Your task to perform on an android device: Open Reddit.com Image 0: 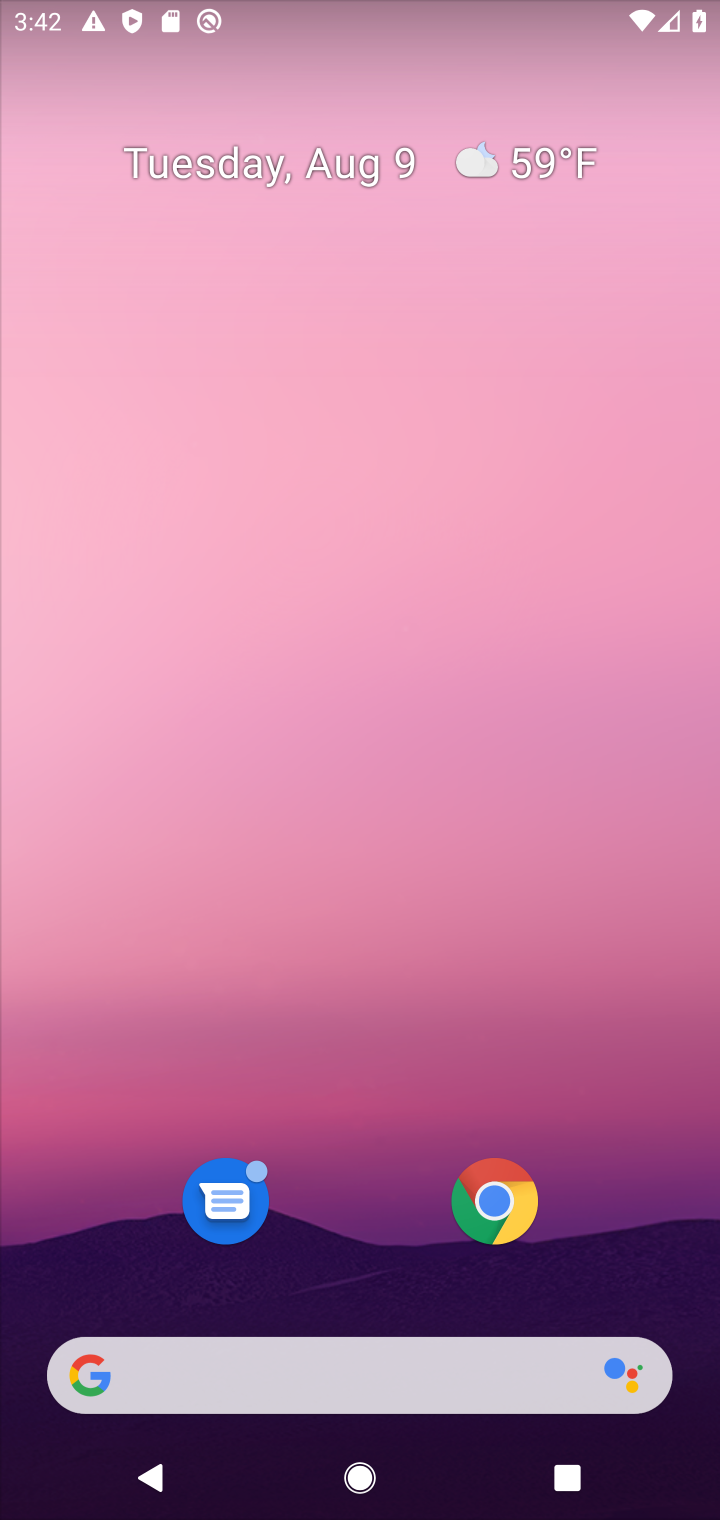
Step 0: click (343, 1385)
Your task to perform on an android device: Open Reddit.com Image 1: 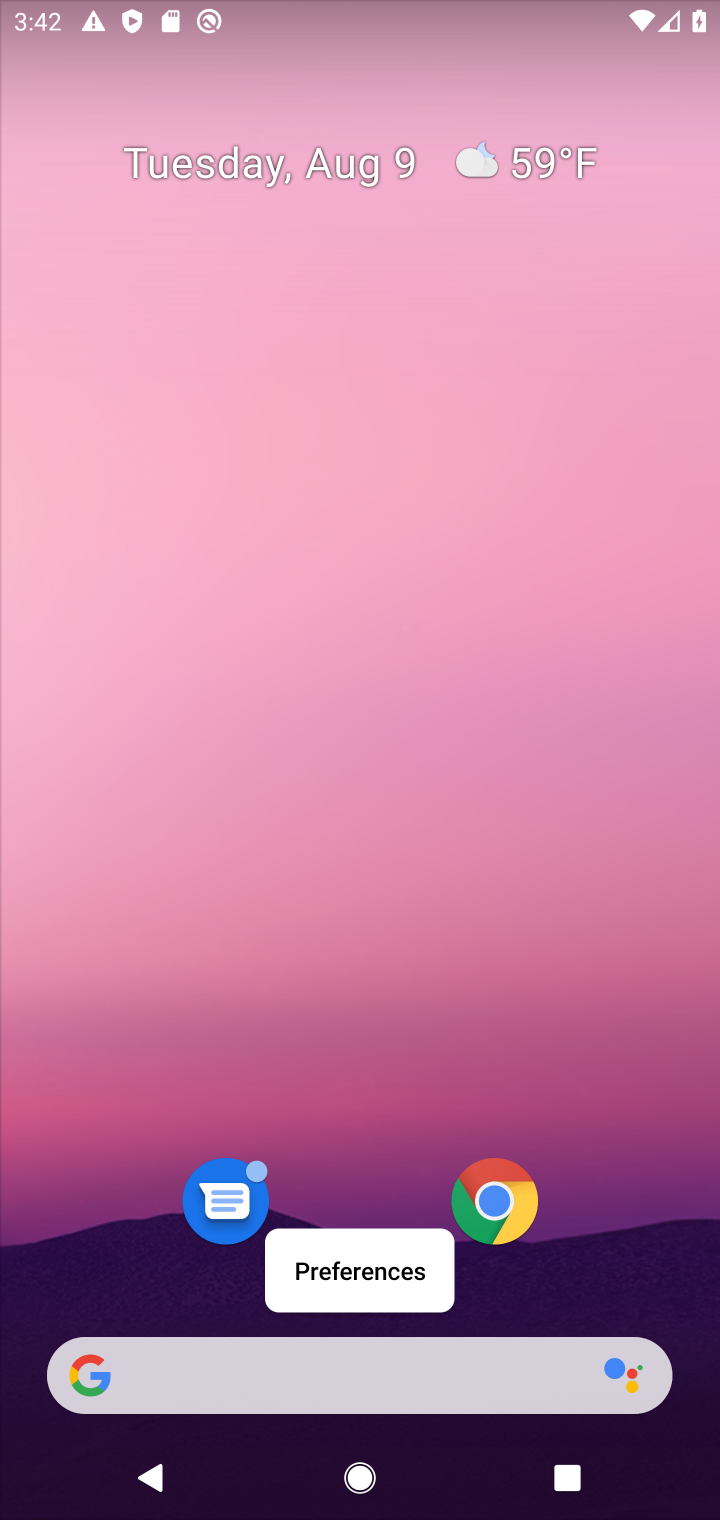
Step 1: click (343, 1385)
Your task to perform on an android device: Open Reddit.com Image 2: 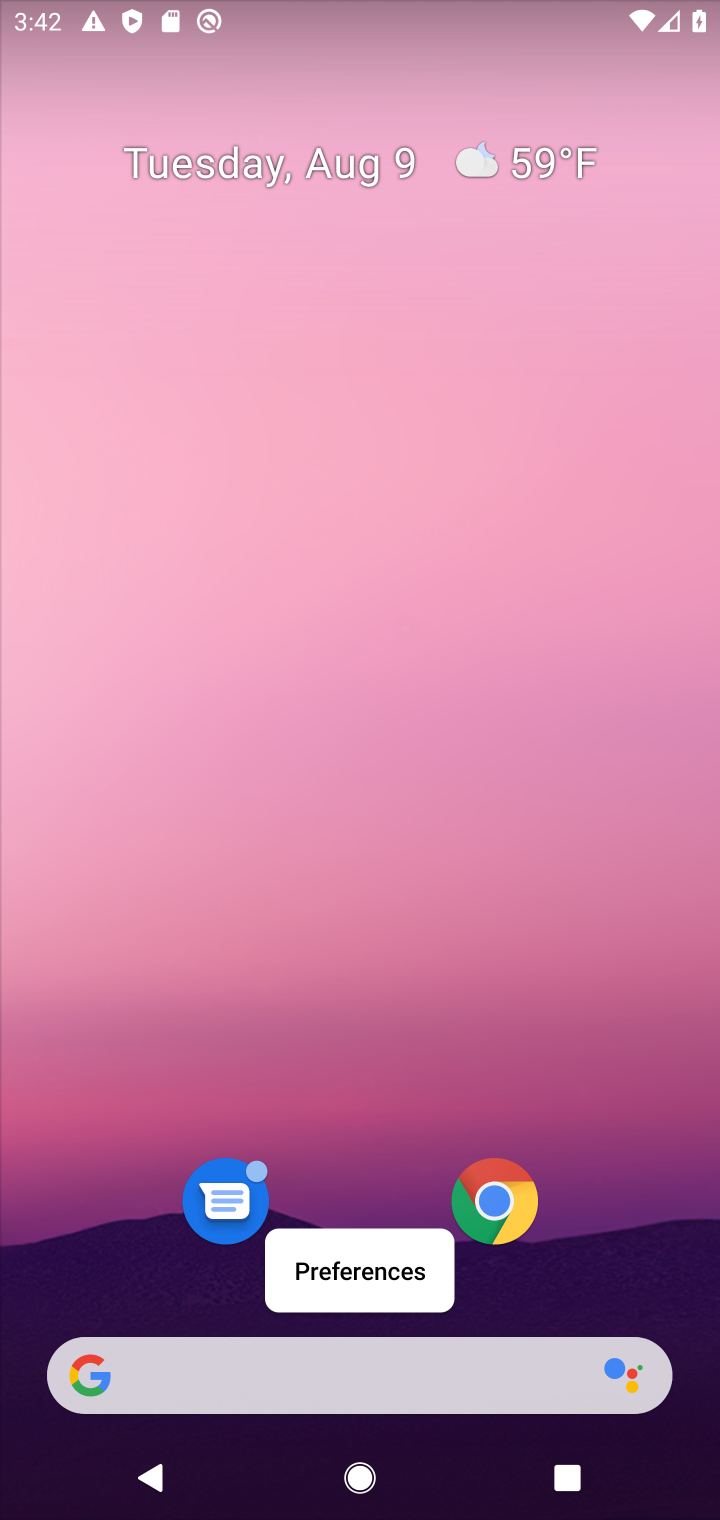
Step 2: click (343, 1385)
Your task to perform on an android device: Open Reddit.com Image 3: 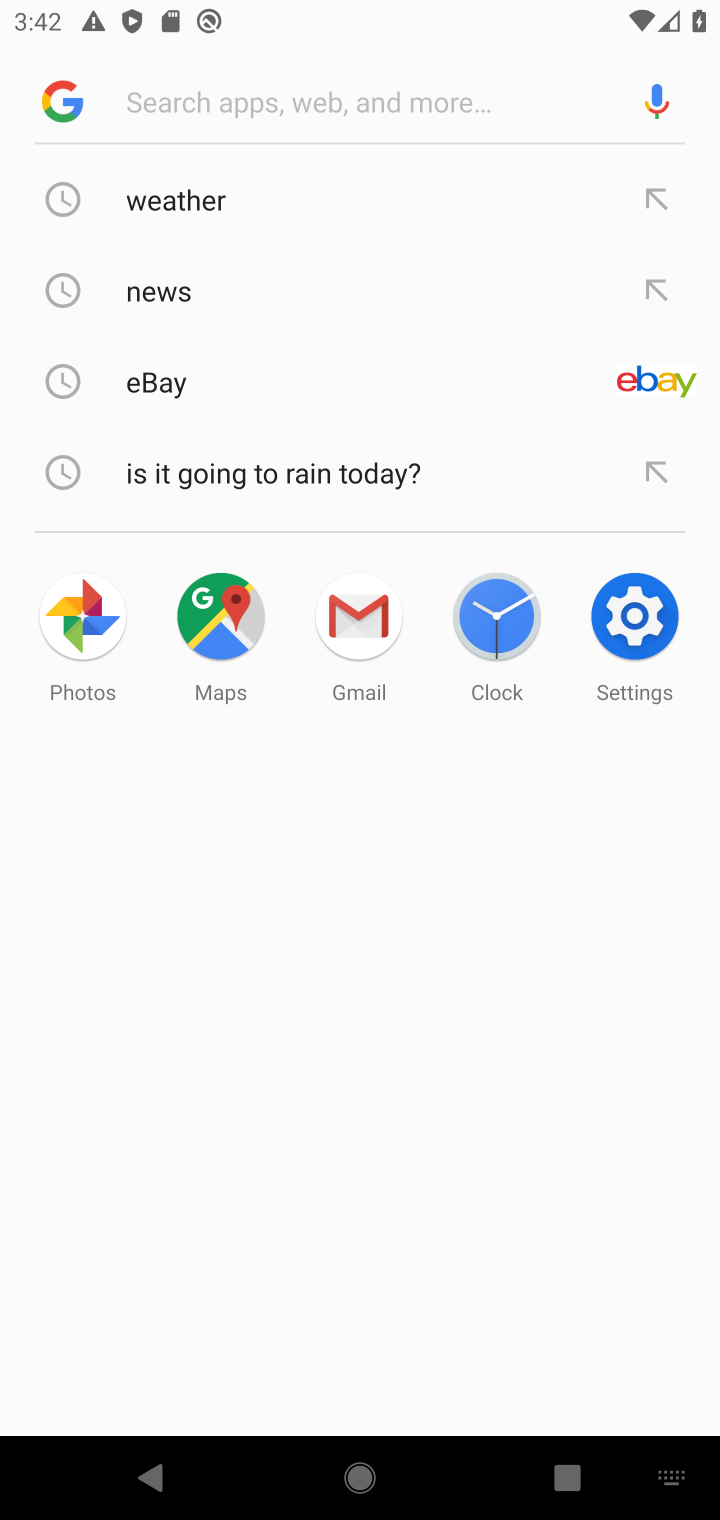
Step 3: type "reddit"
Your task to perform on an android device: Open Reddit.com Image 4: 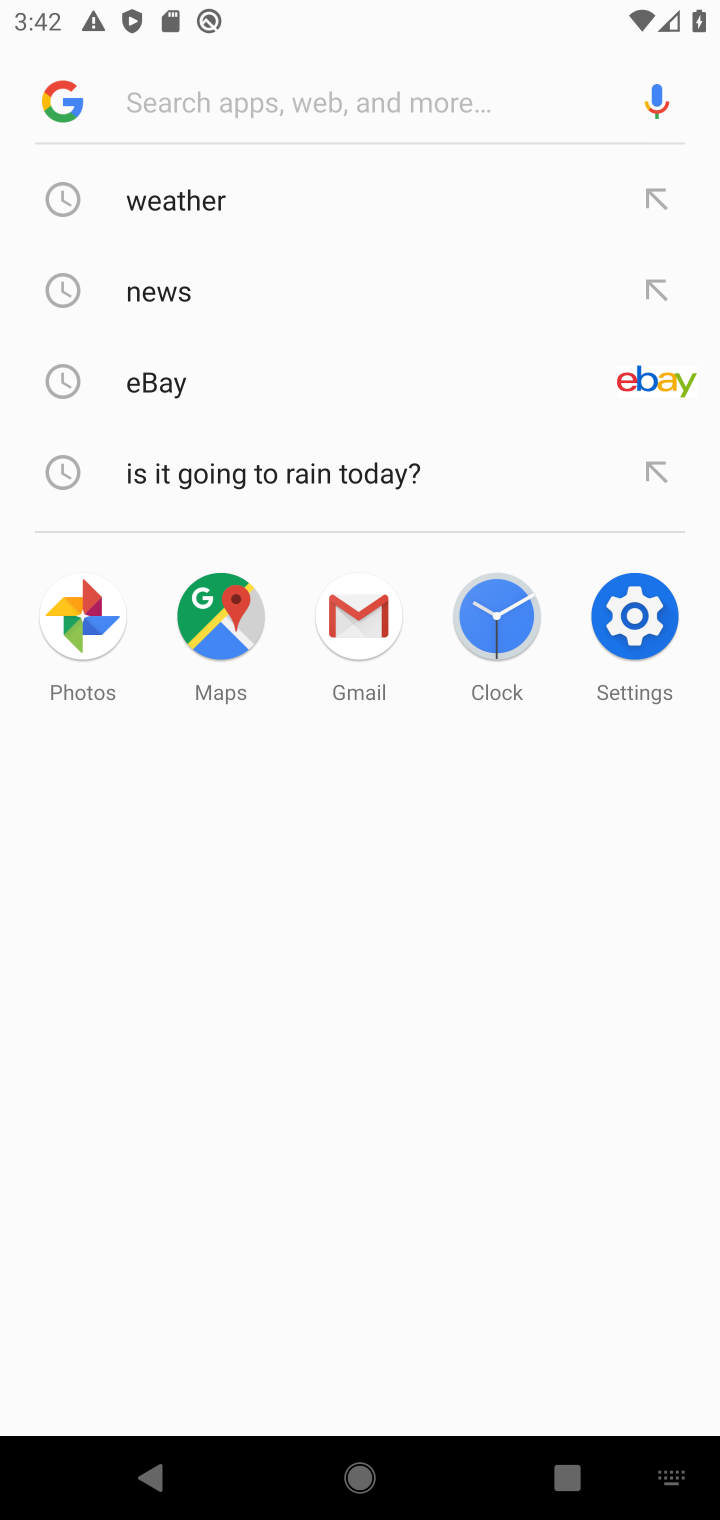
Step 4: click (222, 90)
Your task to perform on an android device: Open Reddit.com Image 5: 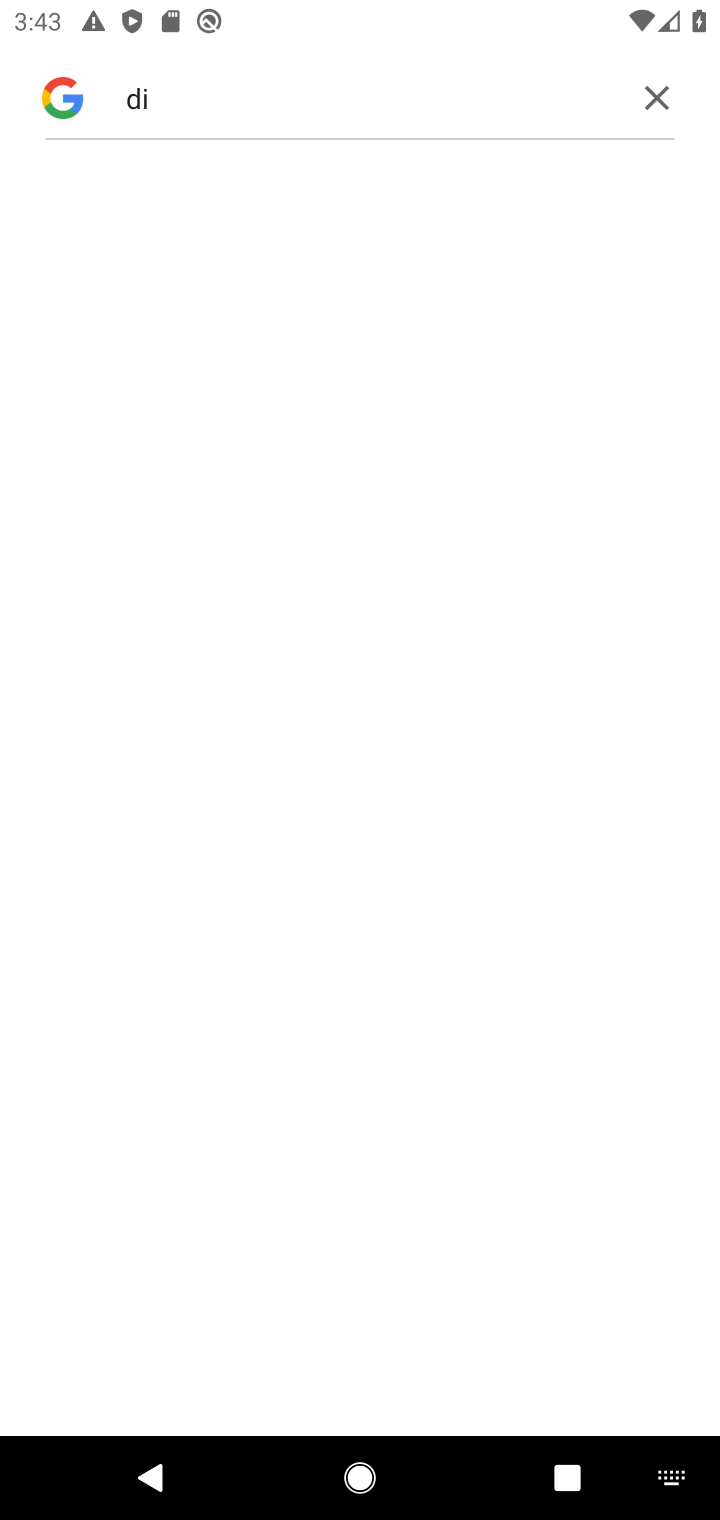
Step 5: click (671, 90)
Your task to perform on an android device: Open Reddit.com Image 6: 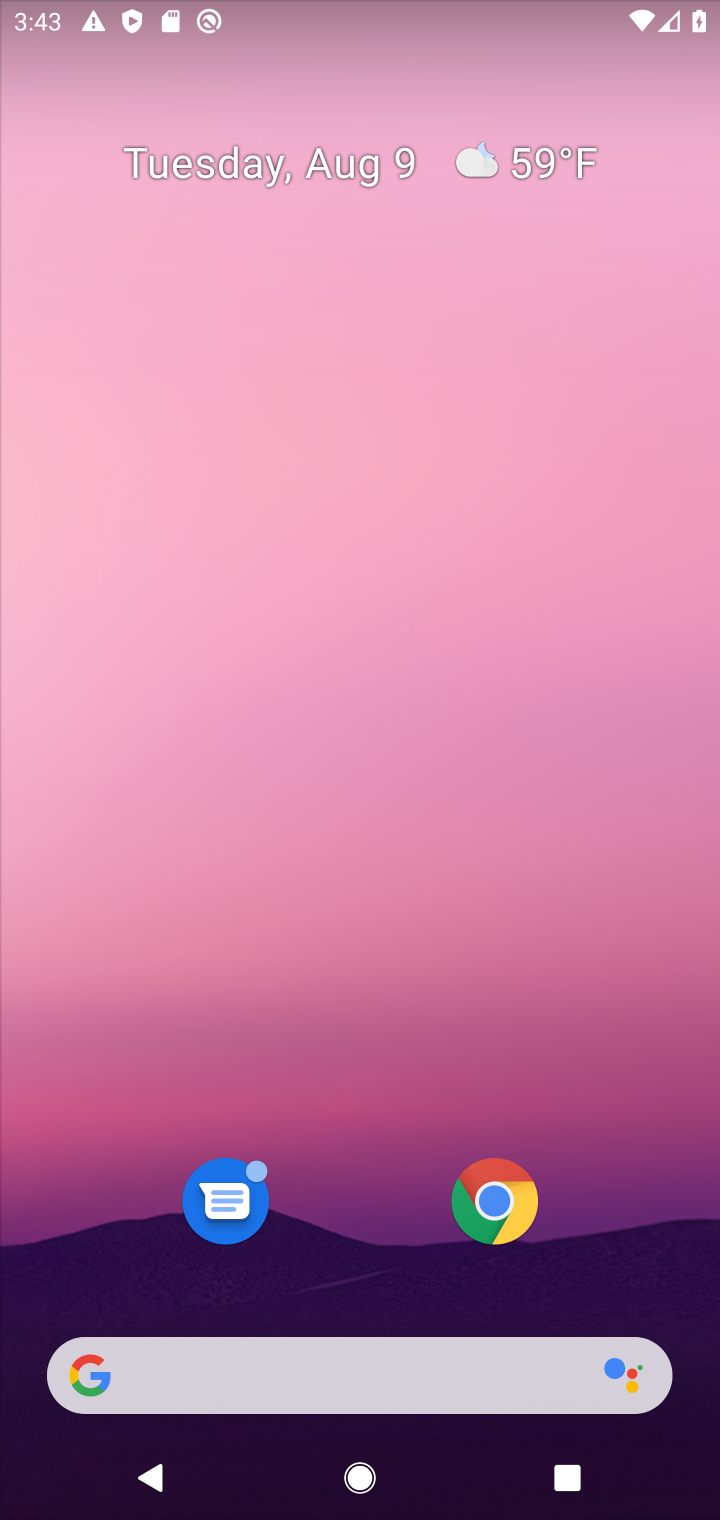
Step 6: type "redit"
Your task to perform on an android device: Open Reddit.com Image 7: 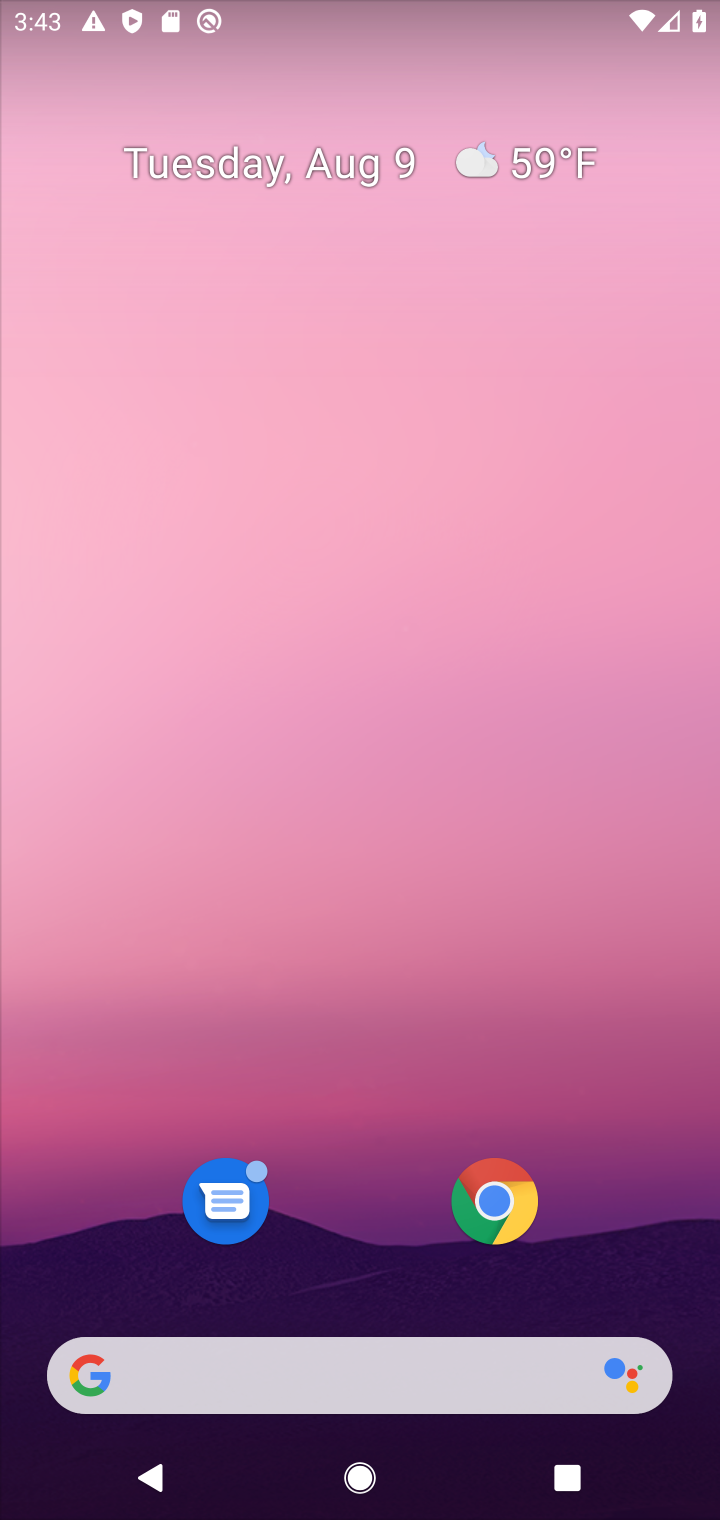
Step 7: click (476, 1386)
Your task to perform on an android device: Open Reddit.com Image 8: 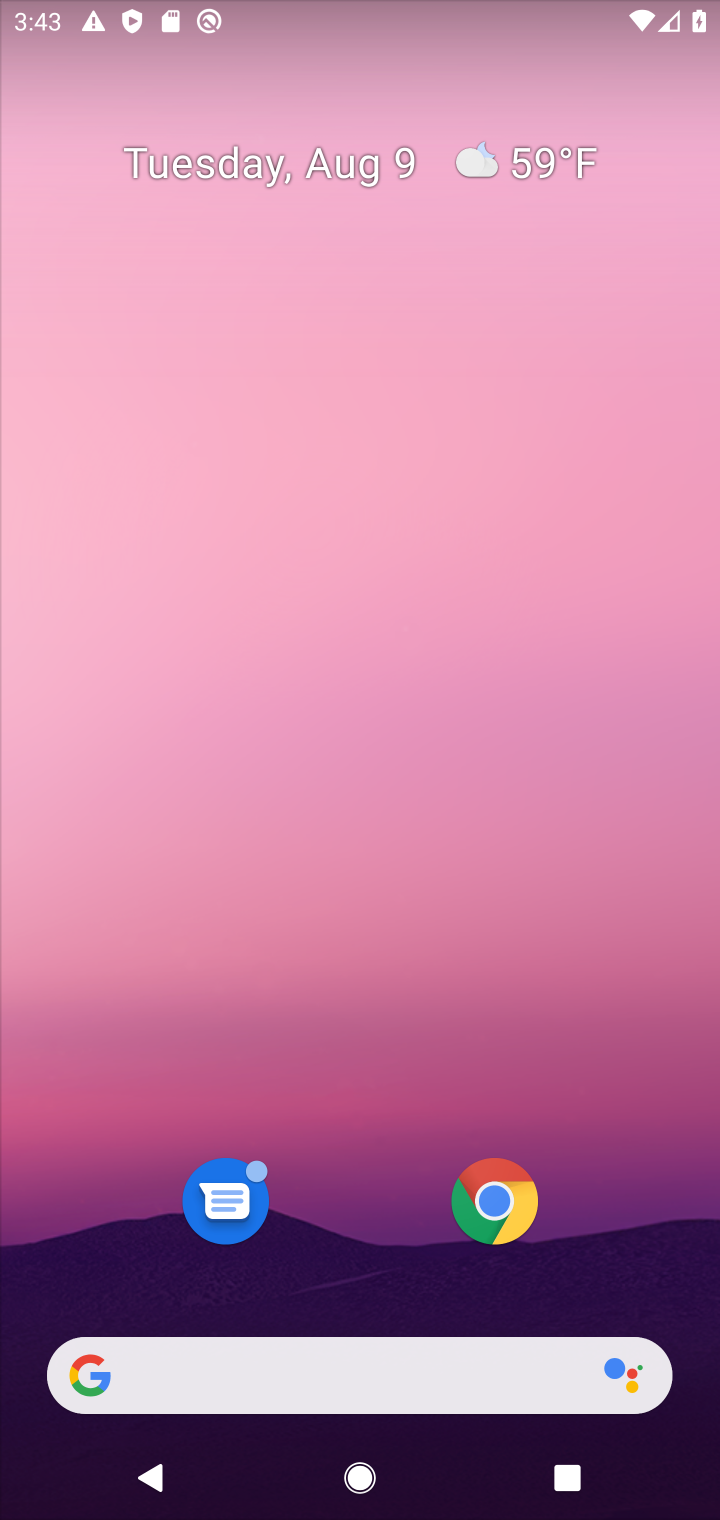
Step 8: click (476, 1386)
Your task to perform on an android device: Open Reddit.com Image 9: 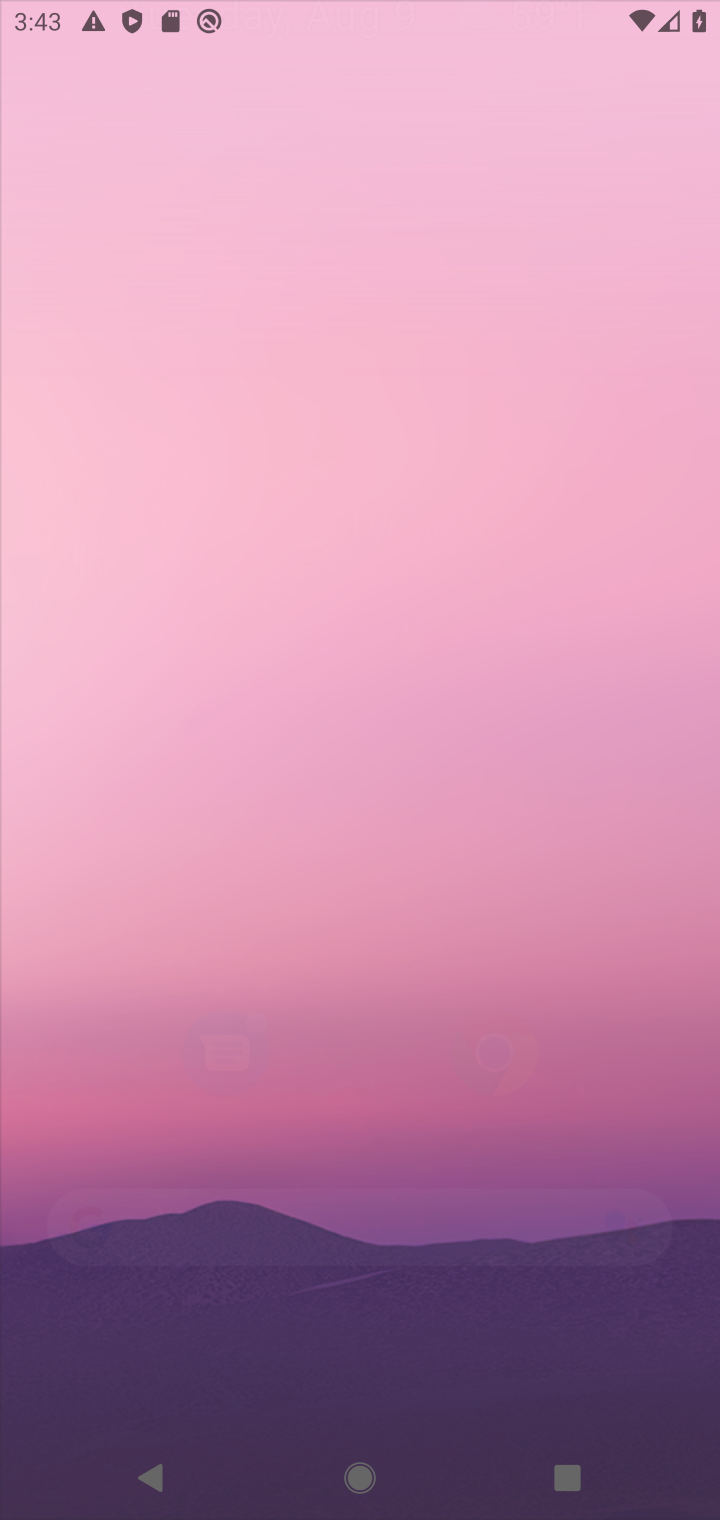
Step 9: click (476, 1386)
Your task to perform on an android device: Open Reddit.com Image 10: 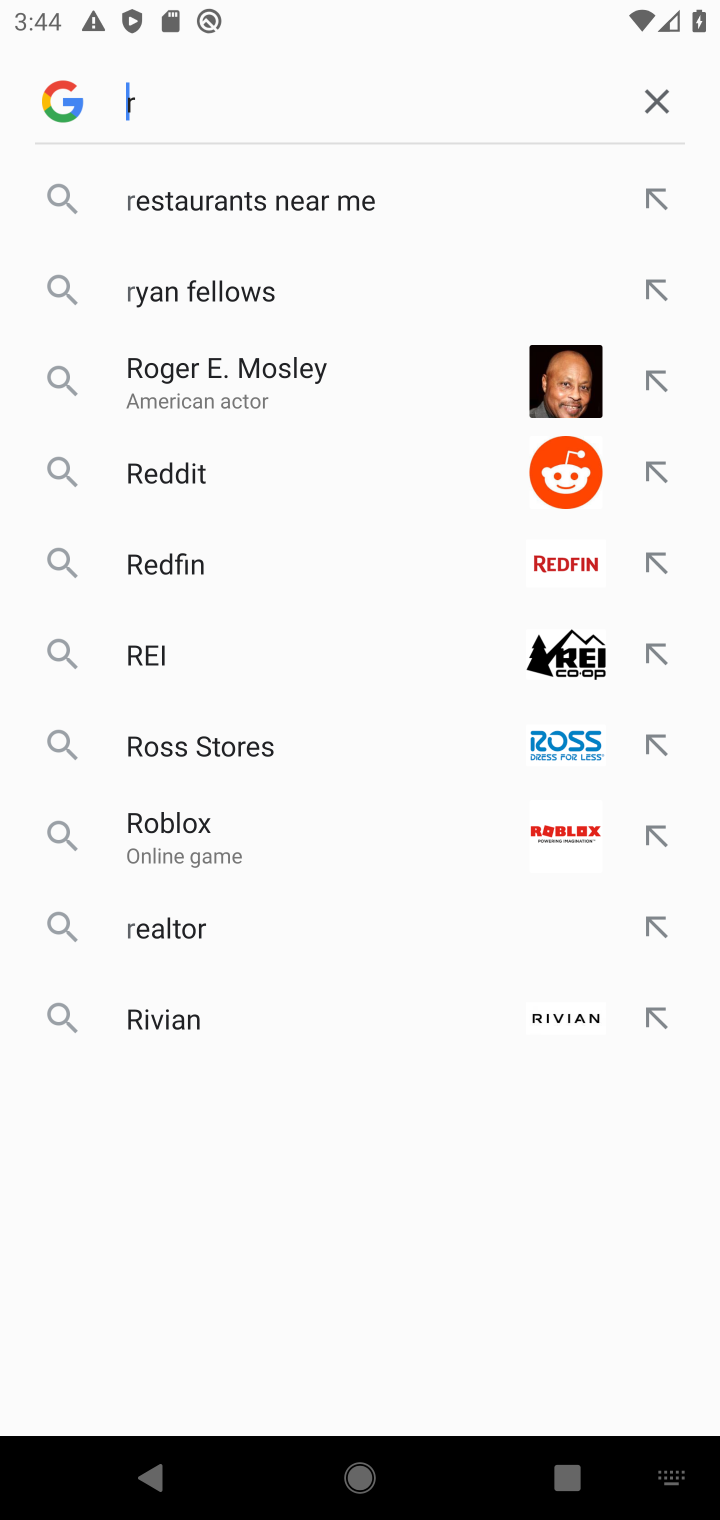
Step 10: click (175, 467)
Your task to perform on an android device: Open Reddit.com Image 11: 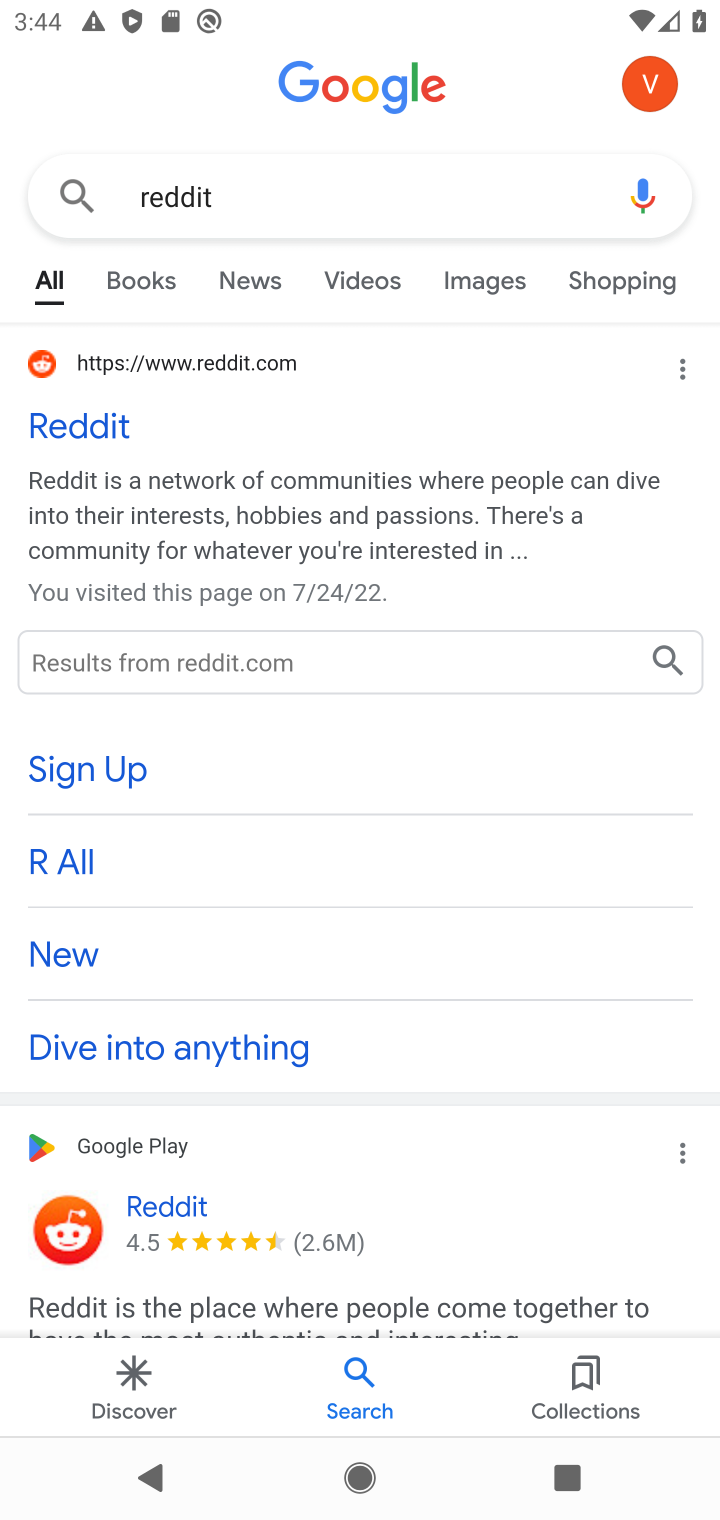
Step 11: click (40, 424)
Your task to perform on an android device: Open Reddit.com Image 12: 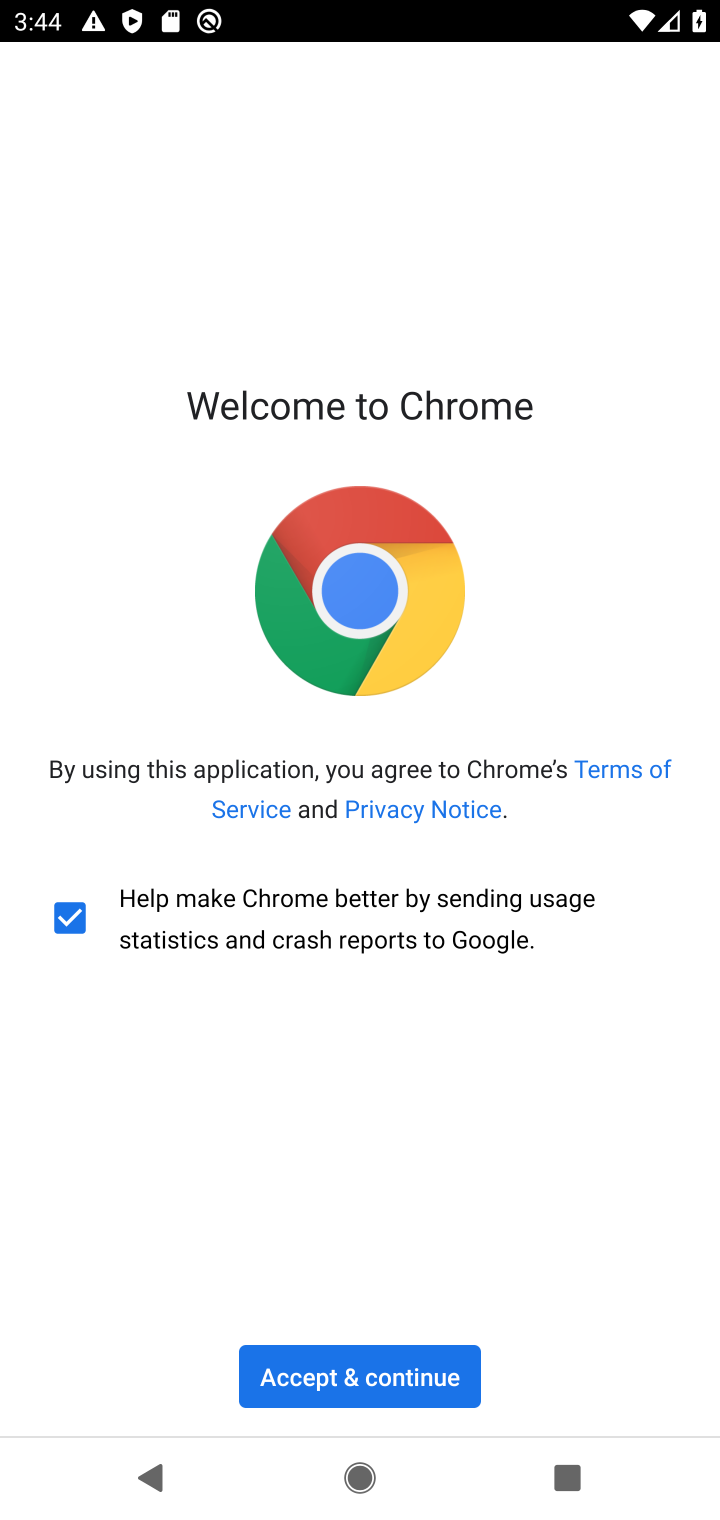
Step 12: click (425, 1375)
Your task to perform on an android device: Open Reddit.com Image 13: 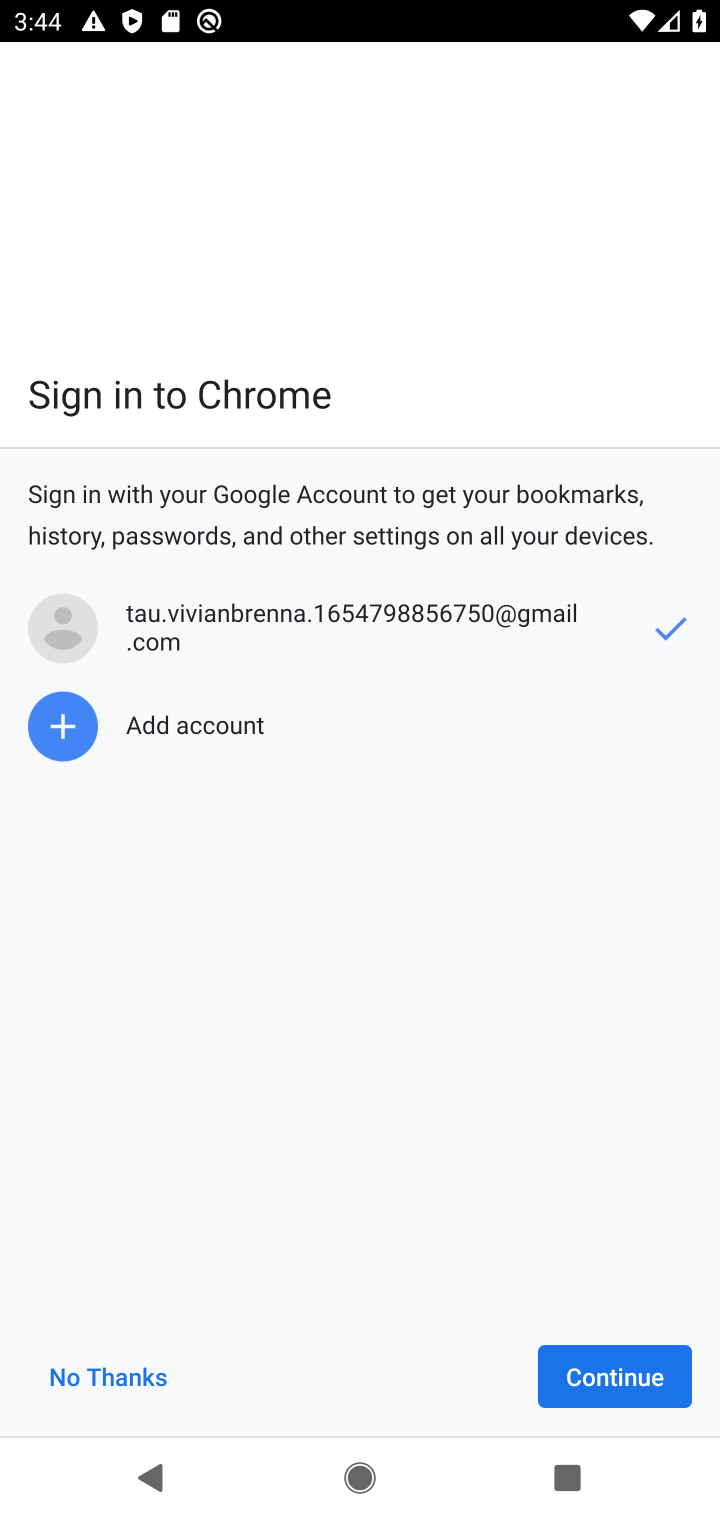
Step 13: click (665, 1380)
Your task to perform on an android device: Open Reddit.com Image 14: 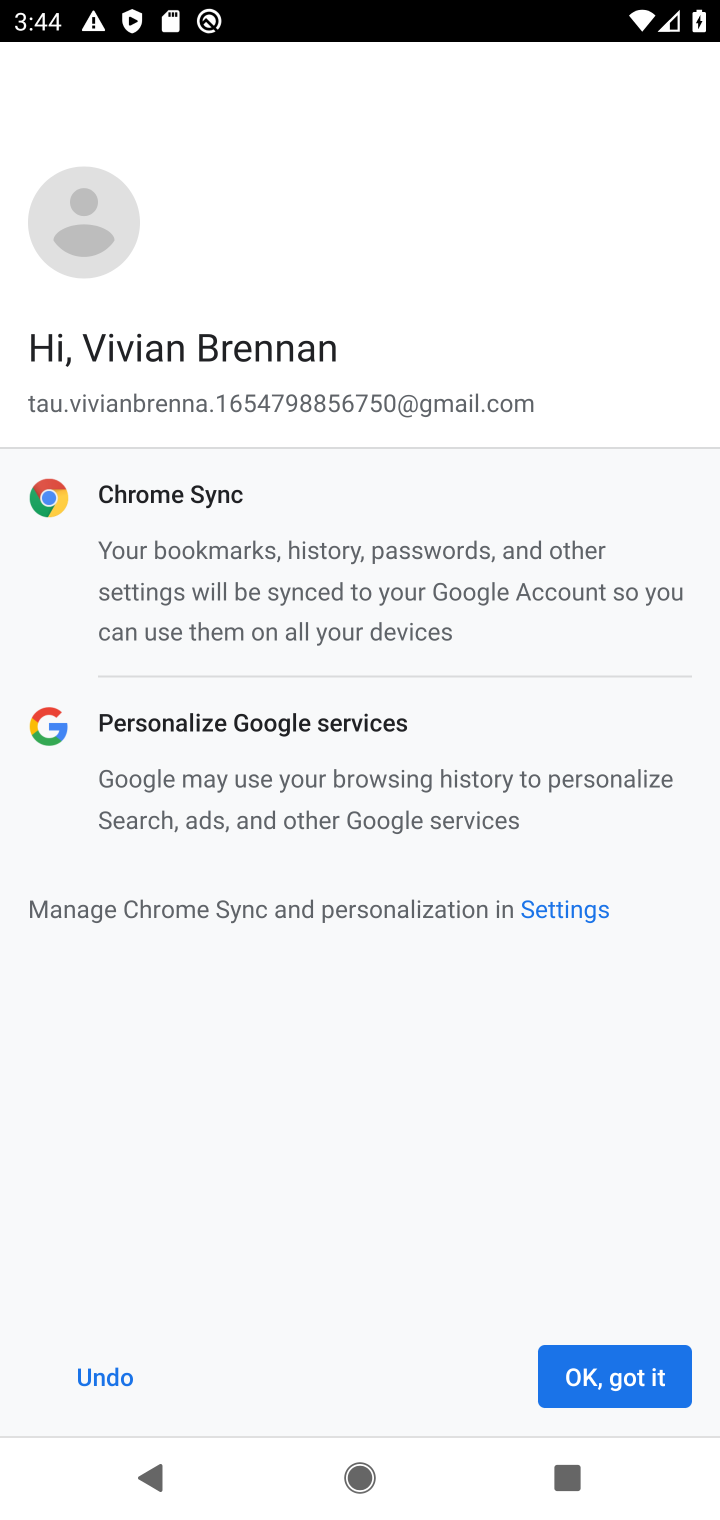
Step 14: click (665, 1380)
Your task to perform on an android device: Open Reddit.com Image 15: 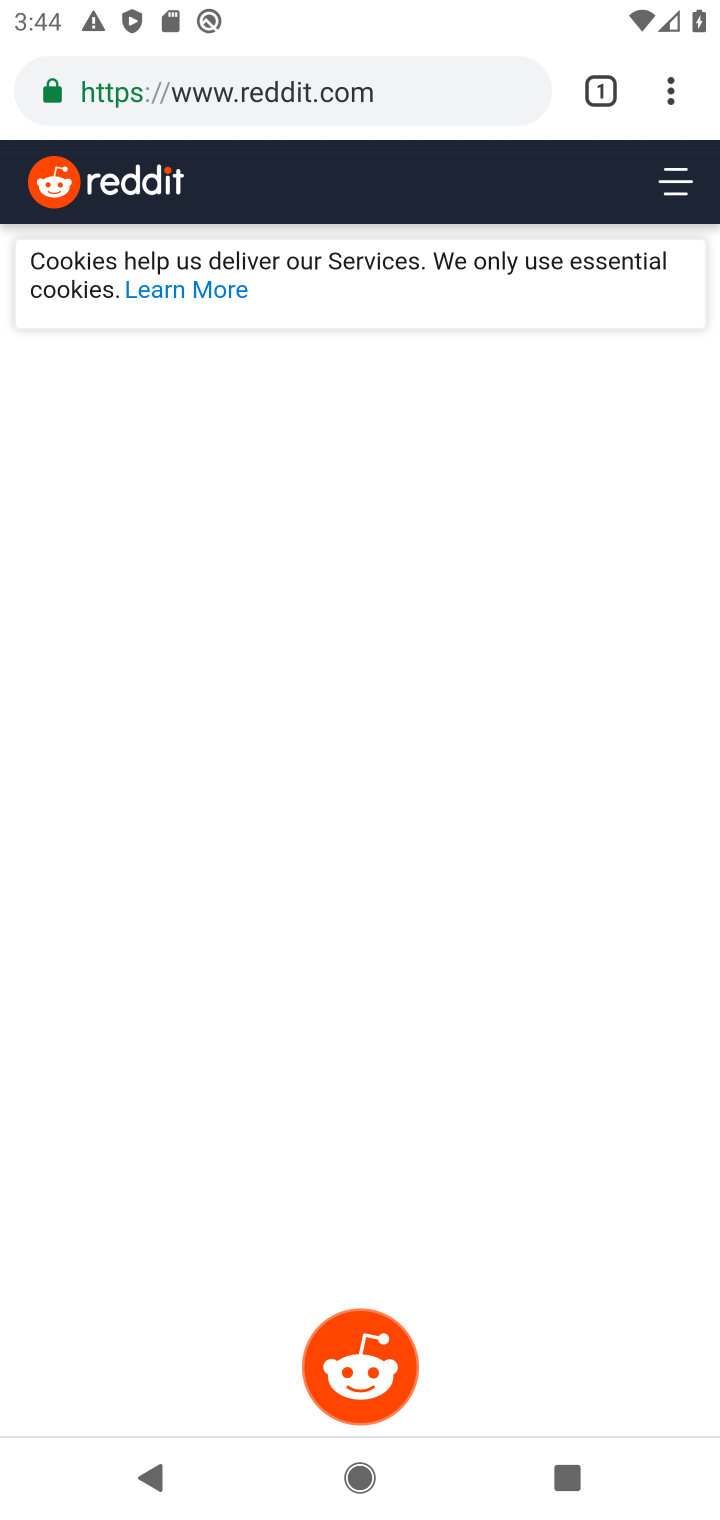
Step 15: task complete